Your task to perform on an android device: Go to CNN.com Image 0: 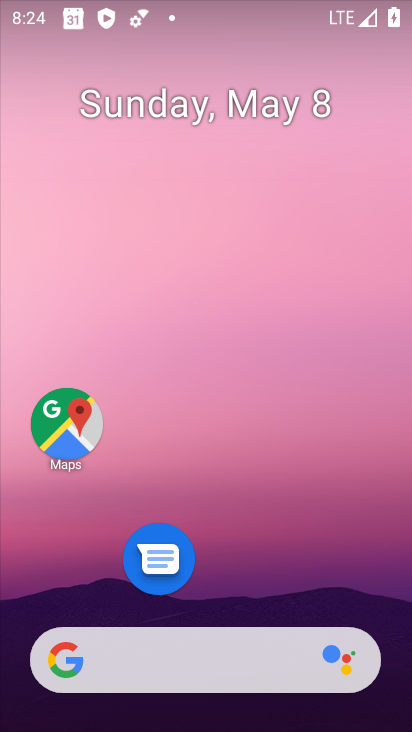
Step 0: drag from (313, 707) to (281, 166)
Your task to perform on an android device: Go to CNN.com Image 1: 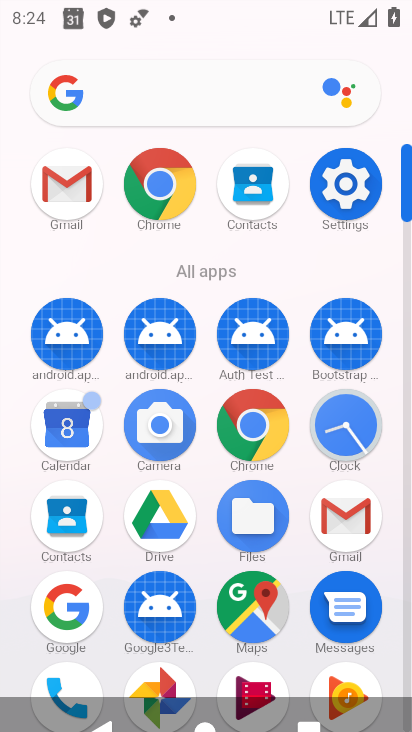
Step 1: click (261, 429)
Your task to perform on an android device: Go to CNN.com Image 2: 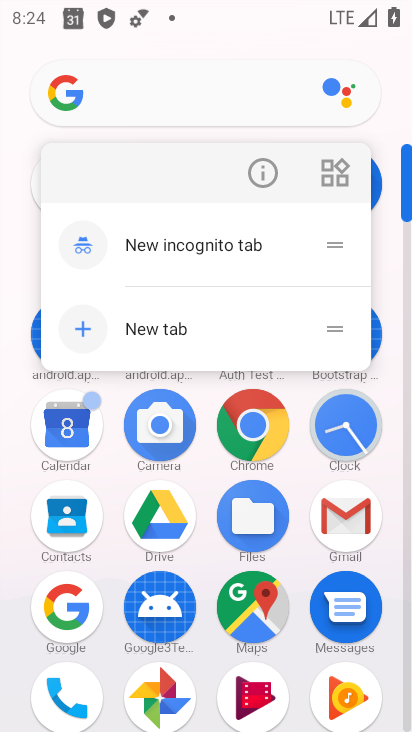
Step 2: click (261, 429)
Your task to perform on an android device: Go to CNN.com Image 3: 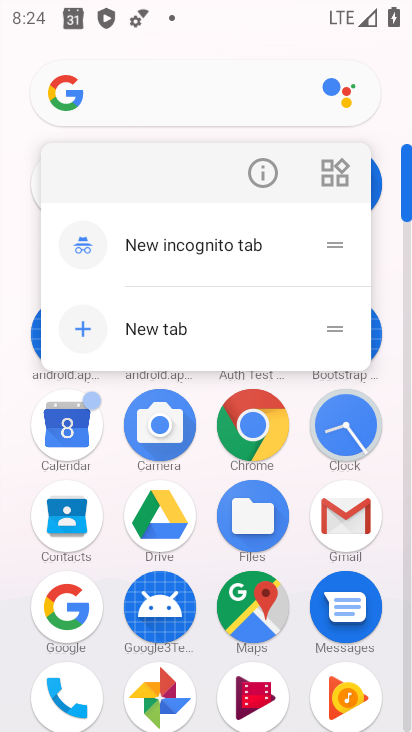
Step 3: click (261, 429)
Your task to perform on an android device: Go to CNN.com Image 4: 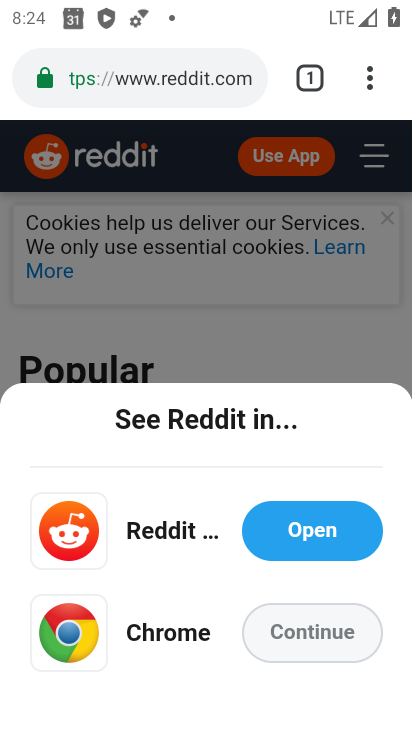
Step 4: click (212, 85)
Your task to perform on an android device: Go to CNN.com Image 5: 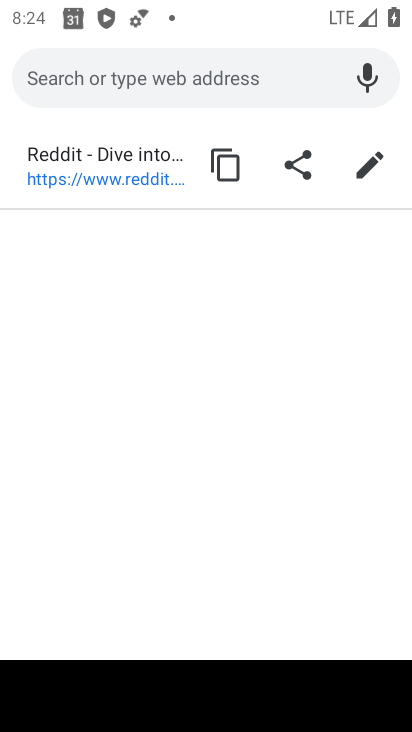
Step 5: type "cnn.com"
Your task to perform on an android device: Go to CNN.com Image 6: 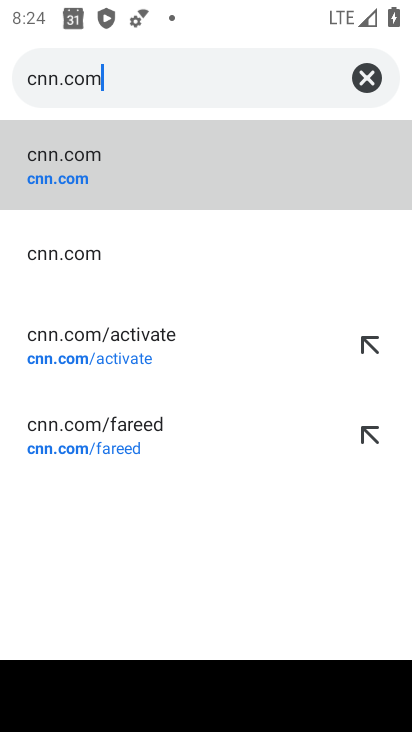
Step 6: click (210, 177)
Your task to perform on an android device: Go to CNN.com Image 7: 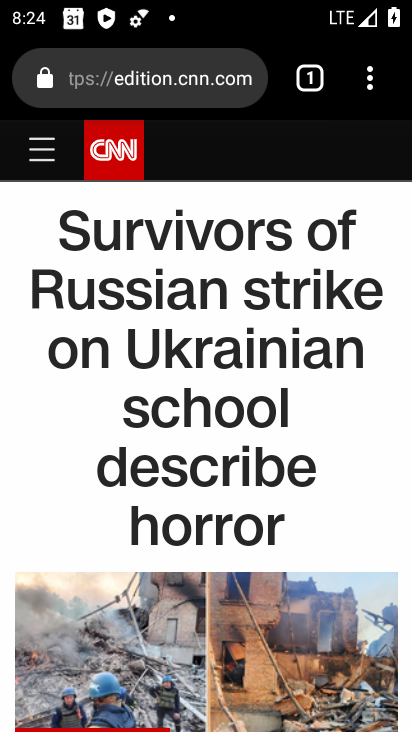
Step 7: task complete